Your task to perform on an android device: Show me popular games on the Play Store Image 0: 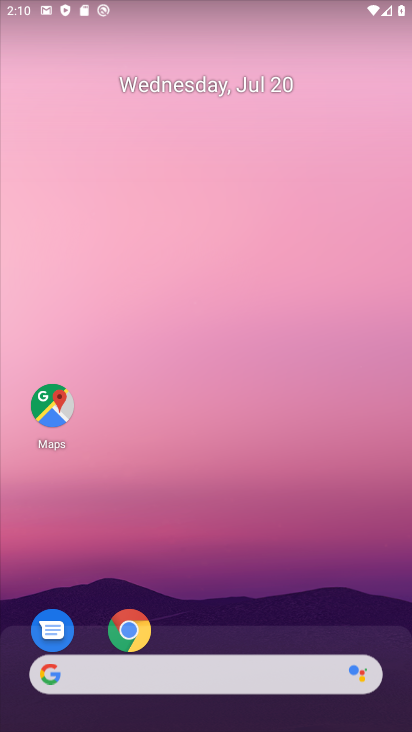
Step 0: drag from (235, 644) to (302, 164)
Your task to perform on an android device: Show me popular games on the Play Store Image 1: 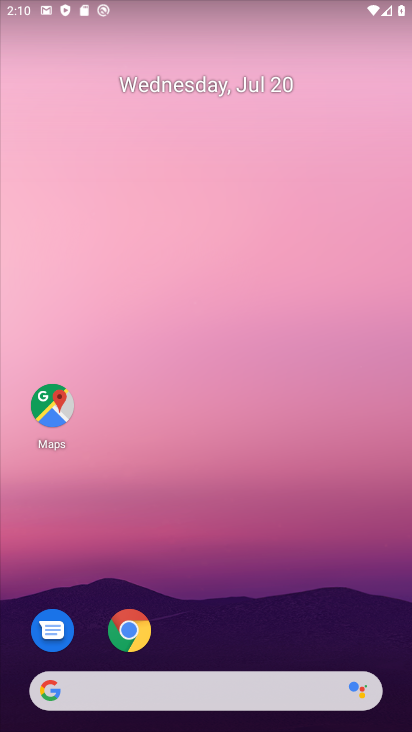
Step 1: drag from (243, 664) to (270, 143)
Your task to perform on an android device: Show me popular games on the Play Store Image 2: 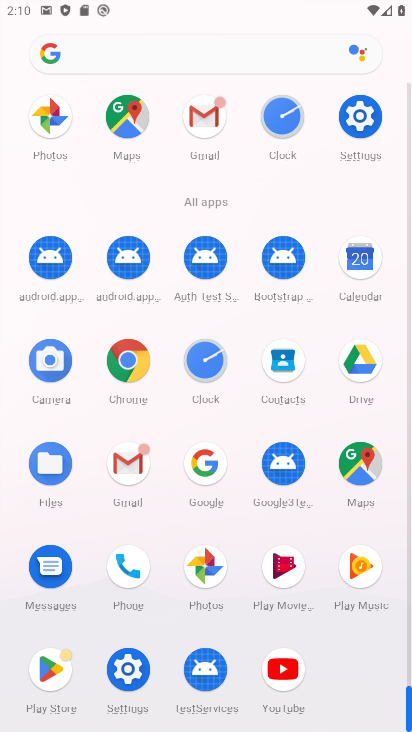
Step 2: click (49, 677)
Your task to perform on an android device: Show me popular games on the Play Store Image 3: 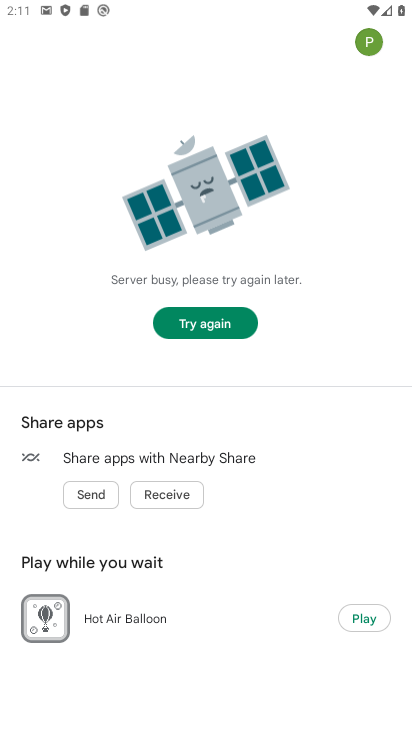
Step 3: task complete